Your task to perform on an android device: Search for sushi restaurants on Maps Image 0: 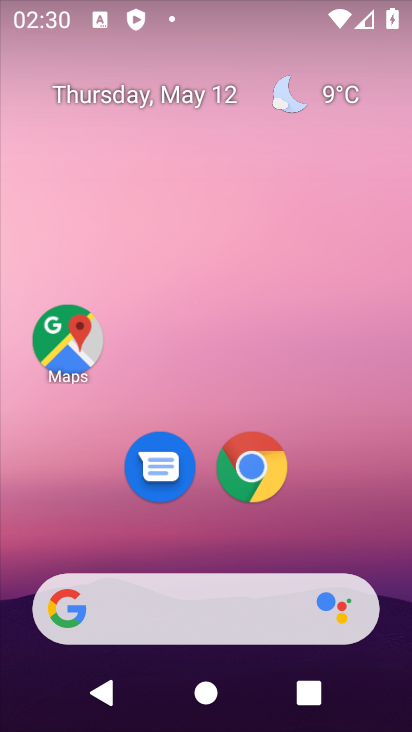
Step 0: click (48, 340)
Your task to perform on an android device: Search for sushi restaurants on Maps Image 1: 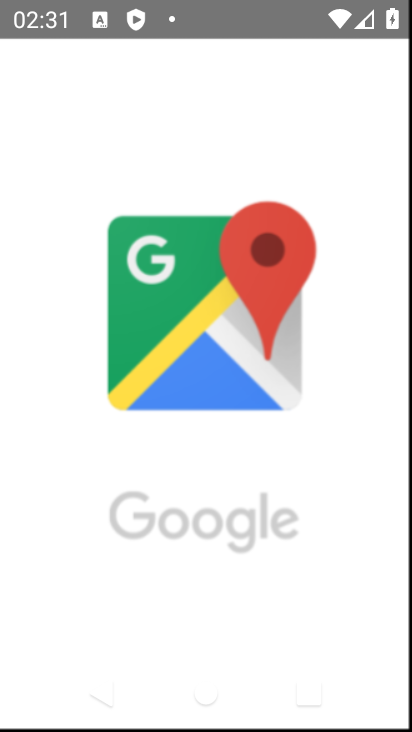
Step 1: task complete